Your task to perform on an android device: Show the shopping cart on bestbuy.com. Image 0: 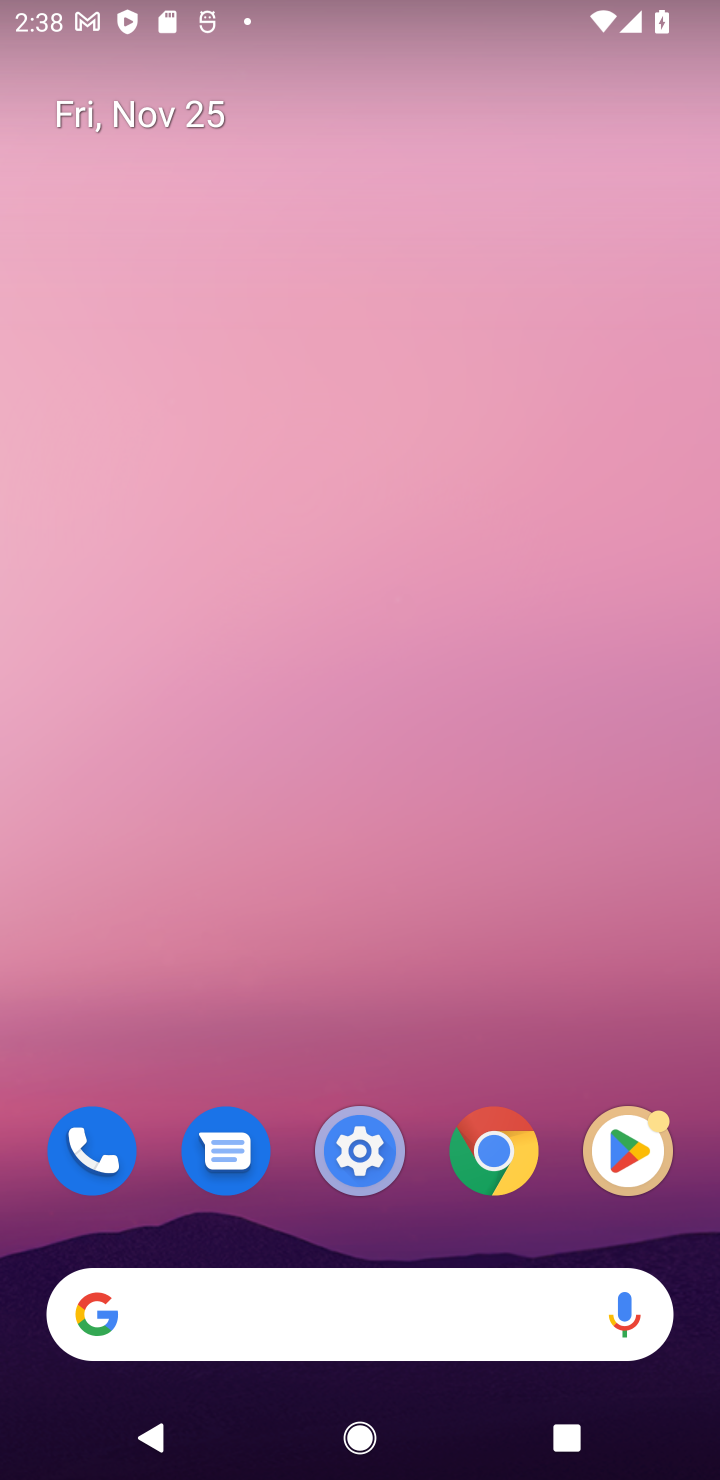
Step 0: click (377, 1319)
Your task to perform on an android device: Show the shopping cart on bestbuy.com. Image 1: 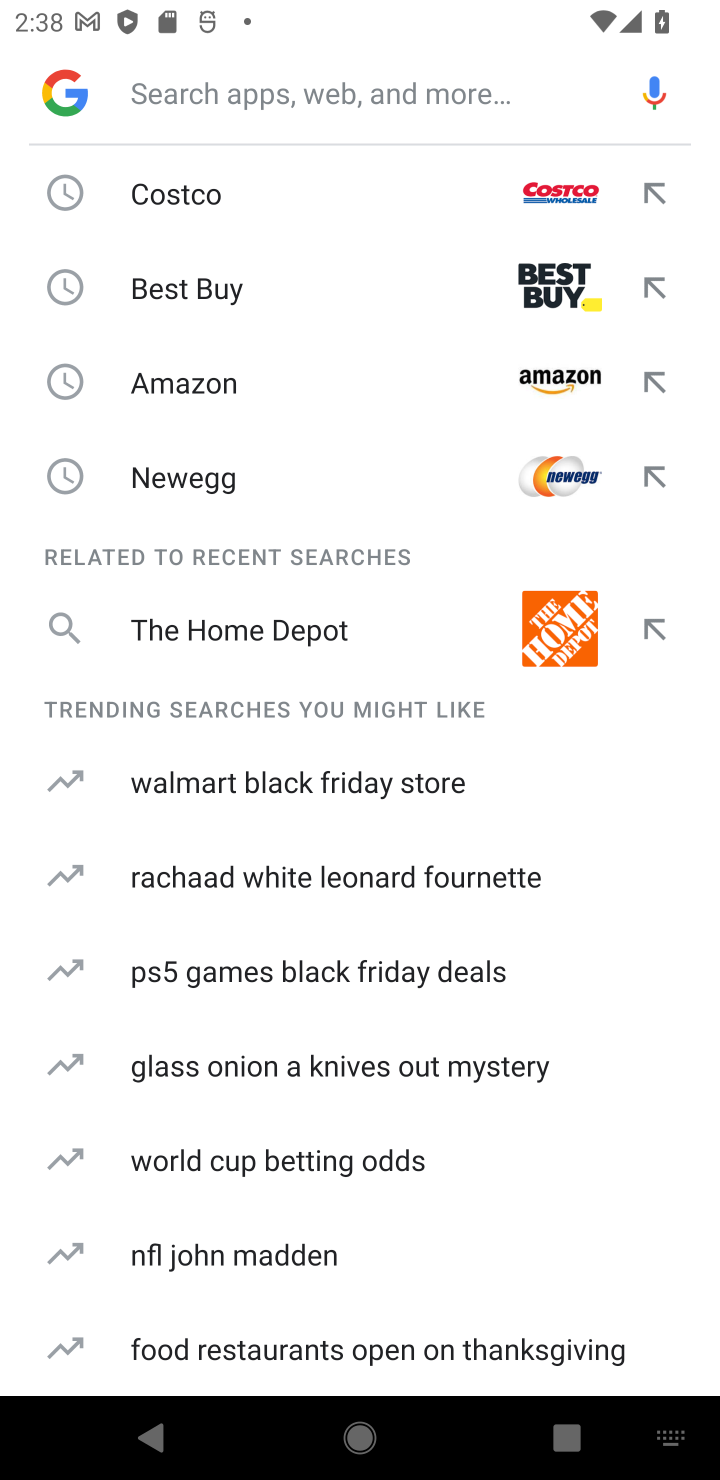
Step 1: type "bestbuy"
Your task to perform on an android device: Show the shopping cart on bestbuy.com. Image 2: 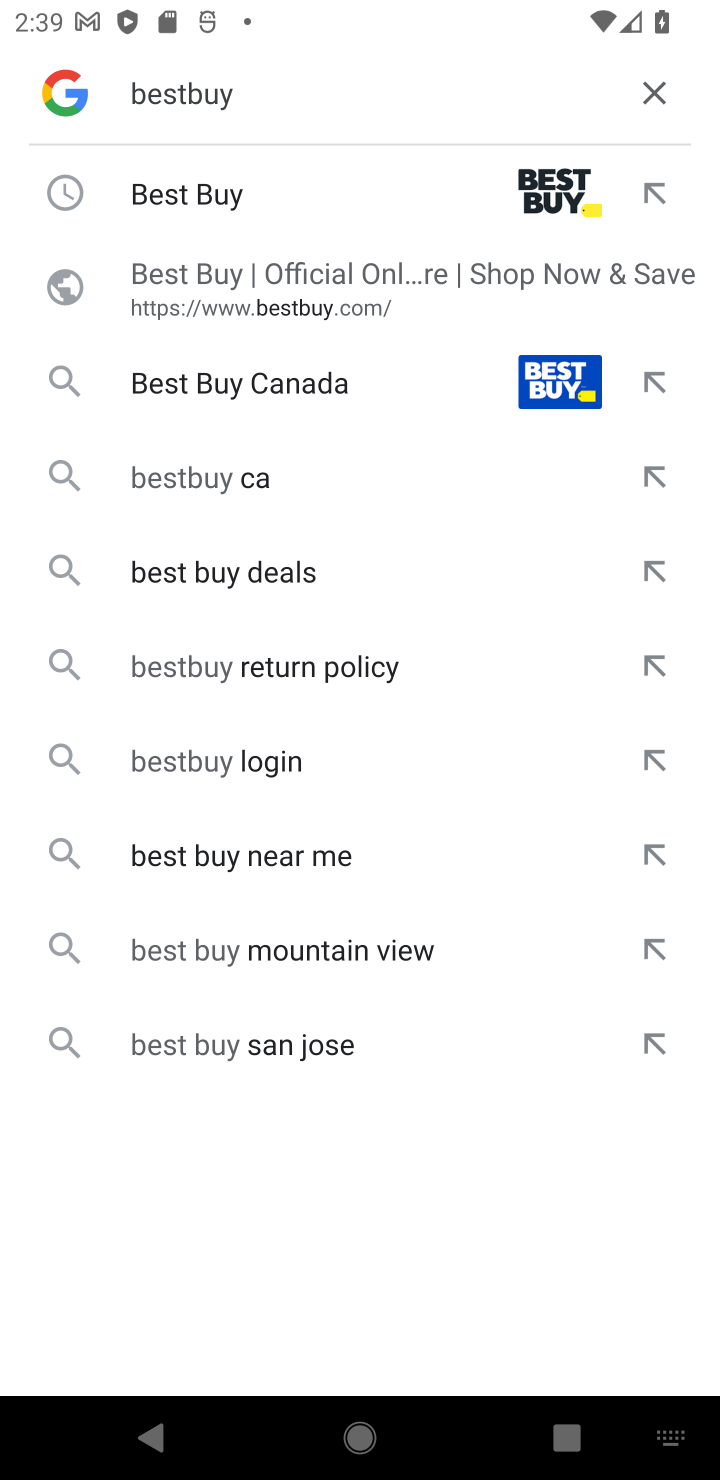
Step 2: click (186, 225)
Your task to perform on an android device: Show the shopping cart on bestbuy.com. Image 3: 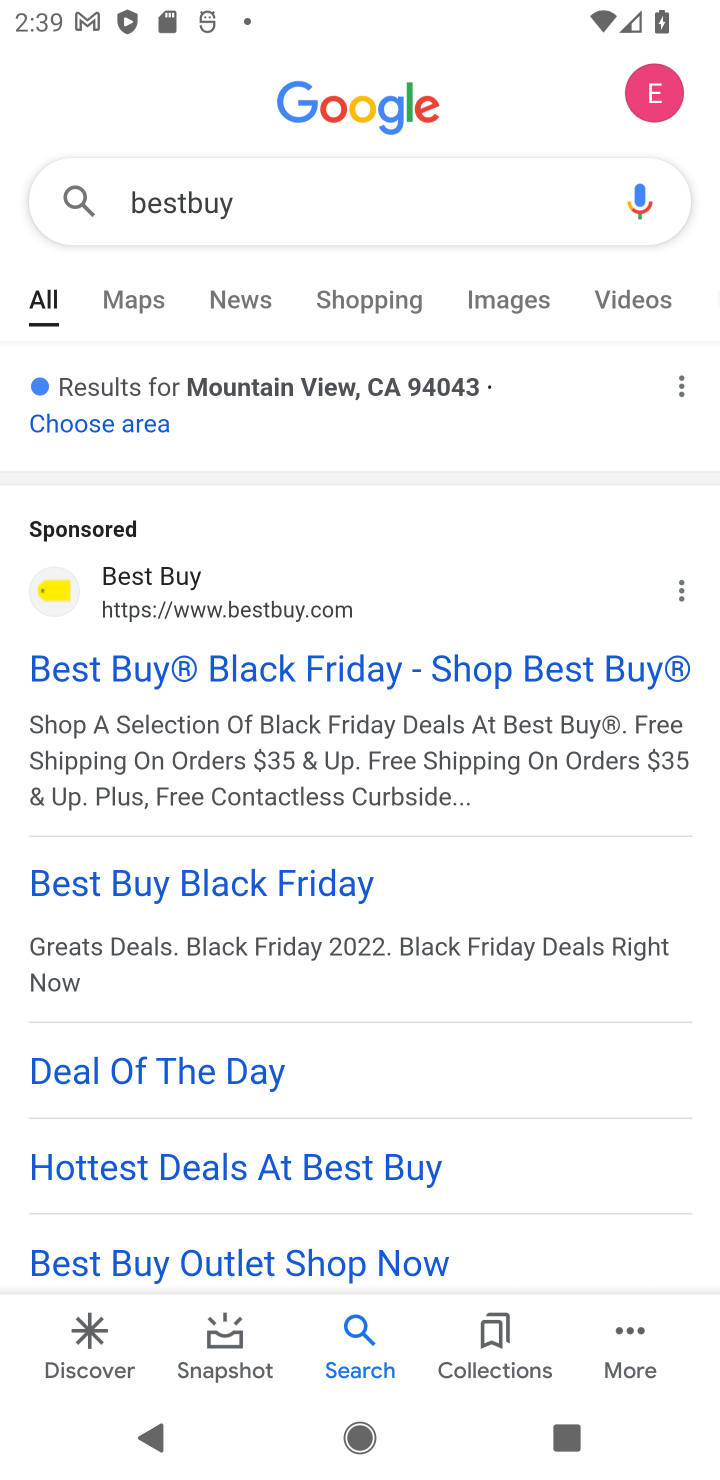
Step 3: click (218, 711)
Your task to perform on an android device: Show the shopping cart on bestbuy.com. Image 4: 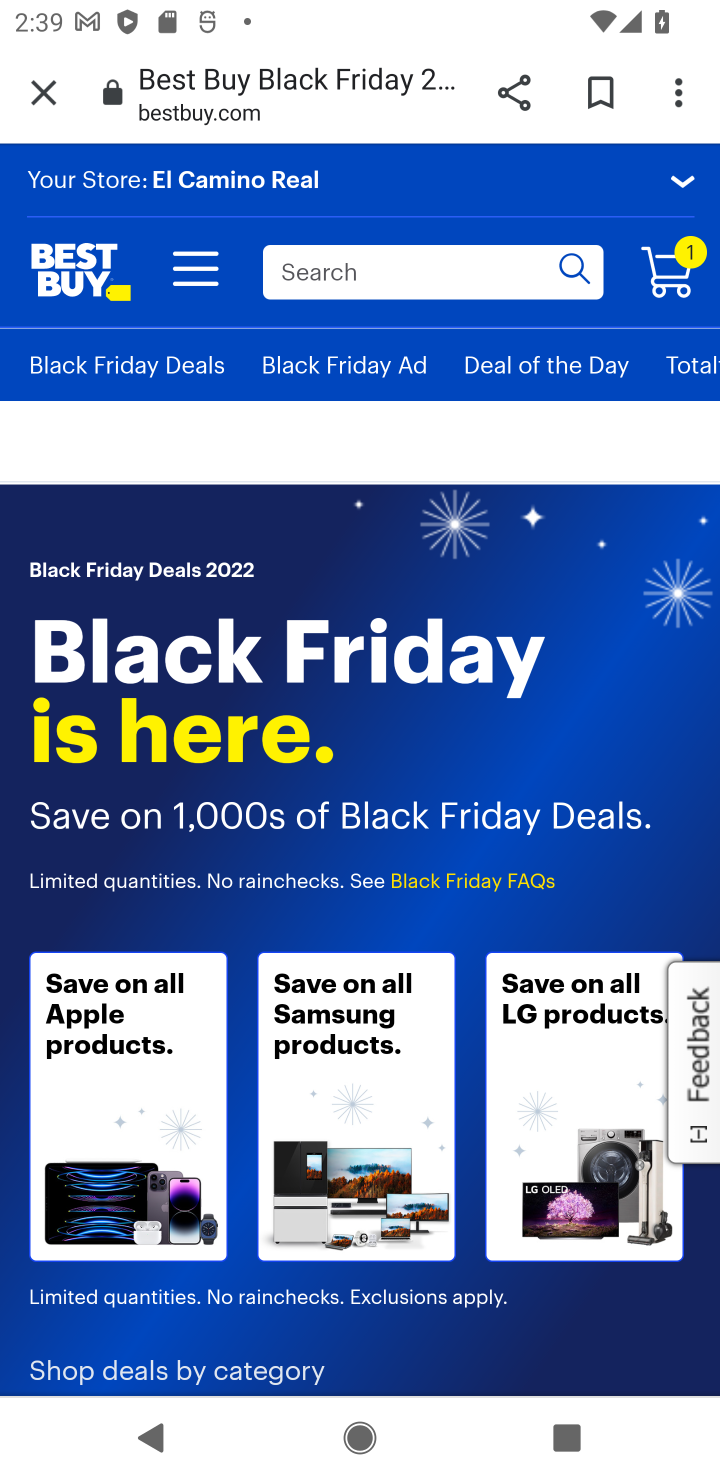
Step 4: click (333, 287)
Your task to perform on an android device: Show the shopping cart on bestbuy.com. Image 5: 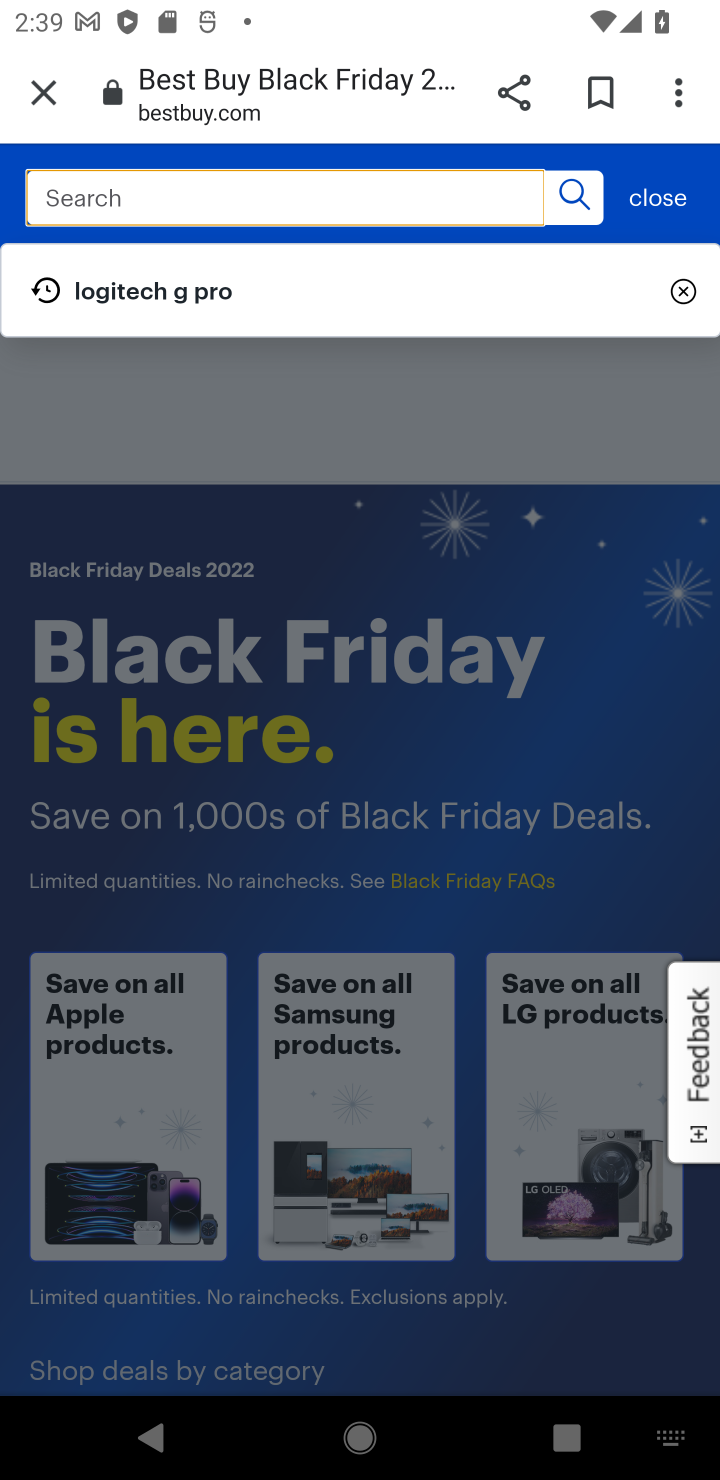
Step 5: task complete